Your task to perform on an android device: Open the phone app and click the voicemail tab. Image 0: 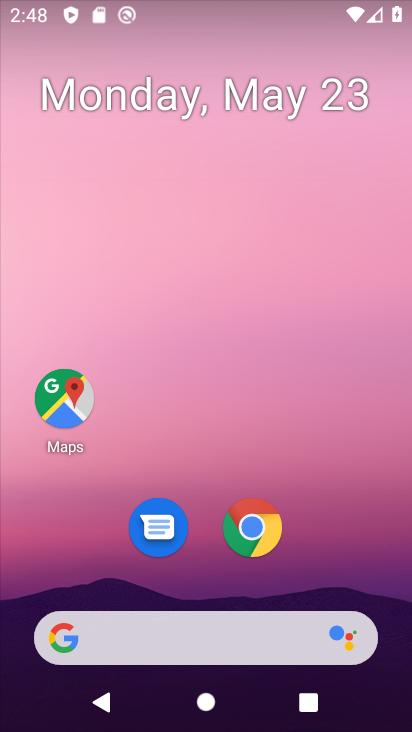
Step 0: drag from (240, 669) to (218, 168)
Your task to perform on an android device: Open the phone app and click the voicemail tab. Image 1: 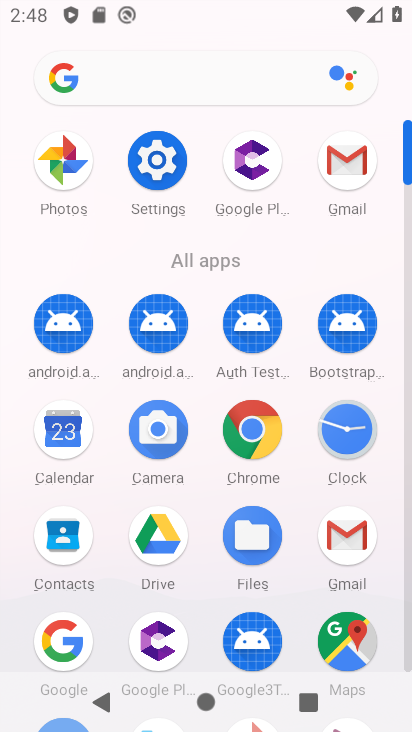
Step 1: drag from (207, 572) to (198, 317)
Your task to perform on an android device: Open the phone app and click the voicemail tab. Image 2: 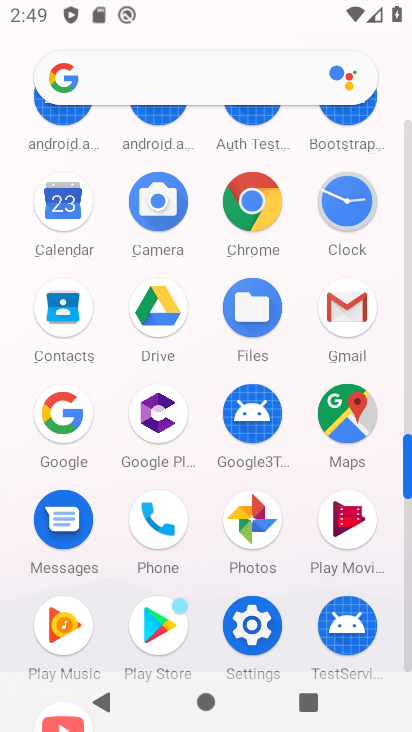
Step 2: click (162, 518)
Your task to perform on an android device: Open the phone app and click the voicemail tab. Image 3: 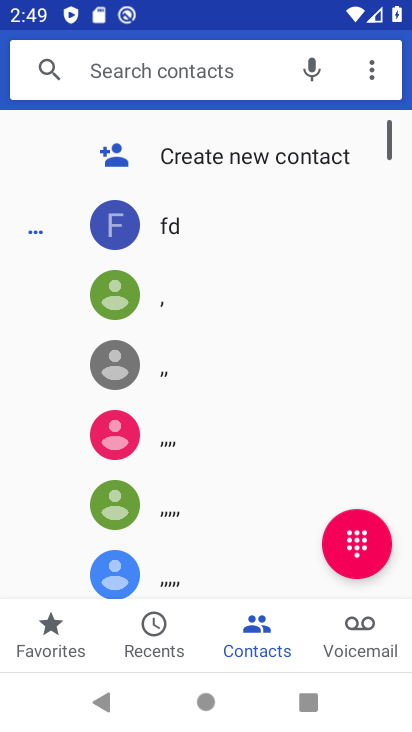
Step 3: click (369, 636)
Your task to perform on an android device: Open the phone app and click the voicemail tab. Image 4: 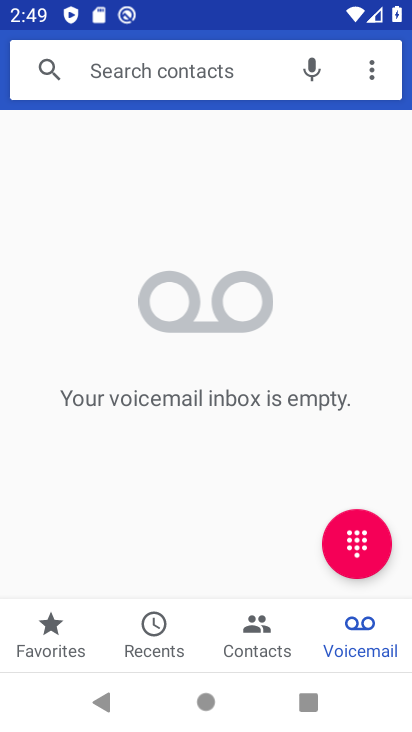
Step 4: task complete